Your task to perform on an android device: Open Google Chrome and click the shortcut for Amazon.com Image 0: 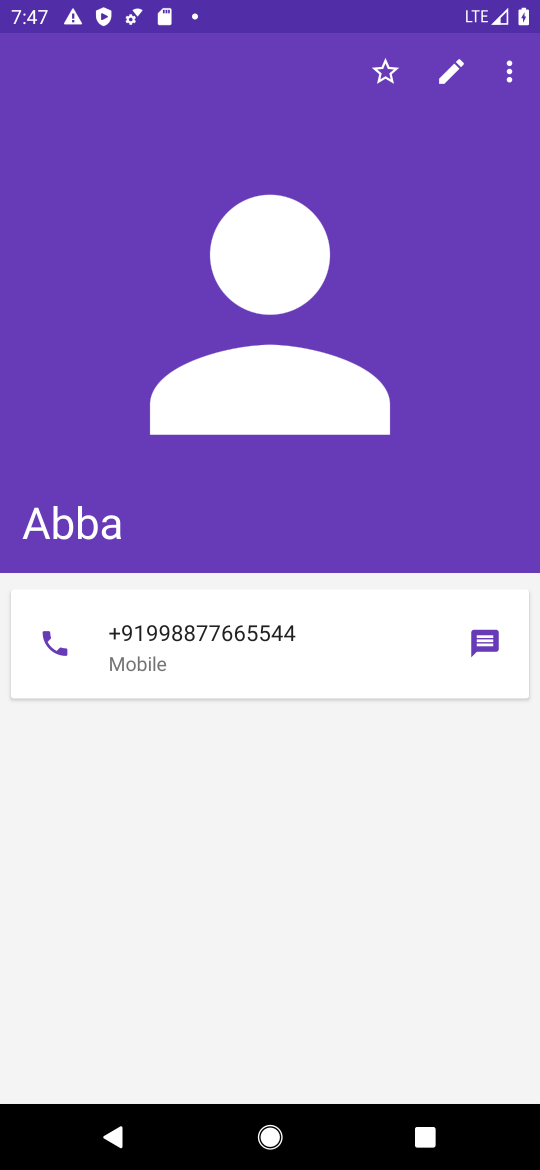
Step 0: press home button
Your task to perform on an android device: Open Google Chrome and click the shortcut for Amazon.com Image 1: 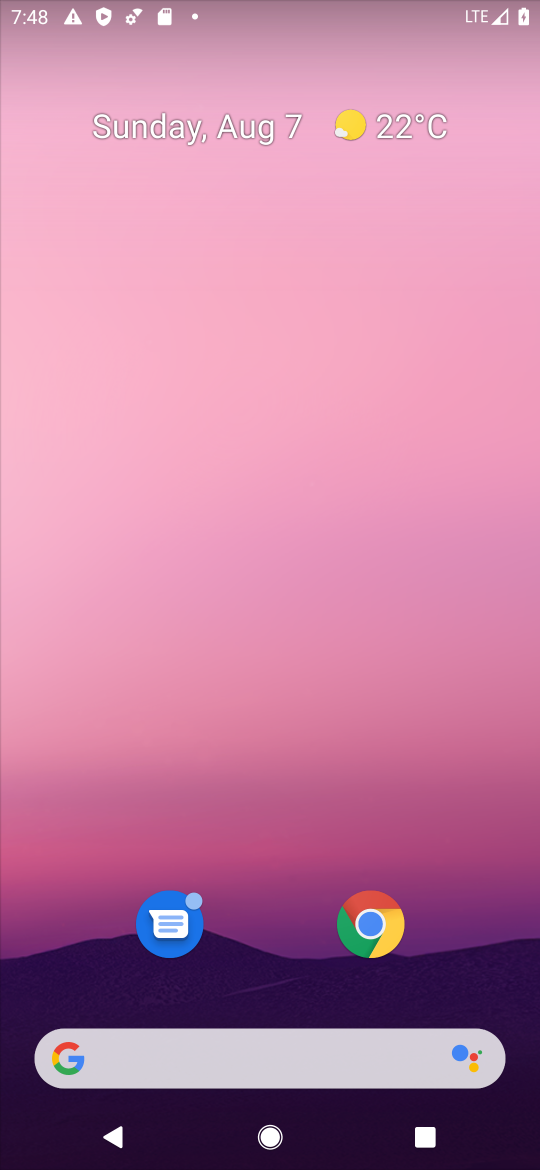
Step 1: drag from (289, 875) to (334, 34)
Your task to perform on an android device: Open Google Chrome and click the shortcut for Amazon.com Image 2: 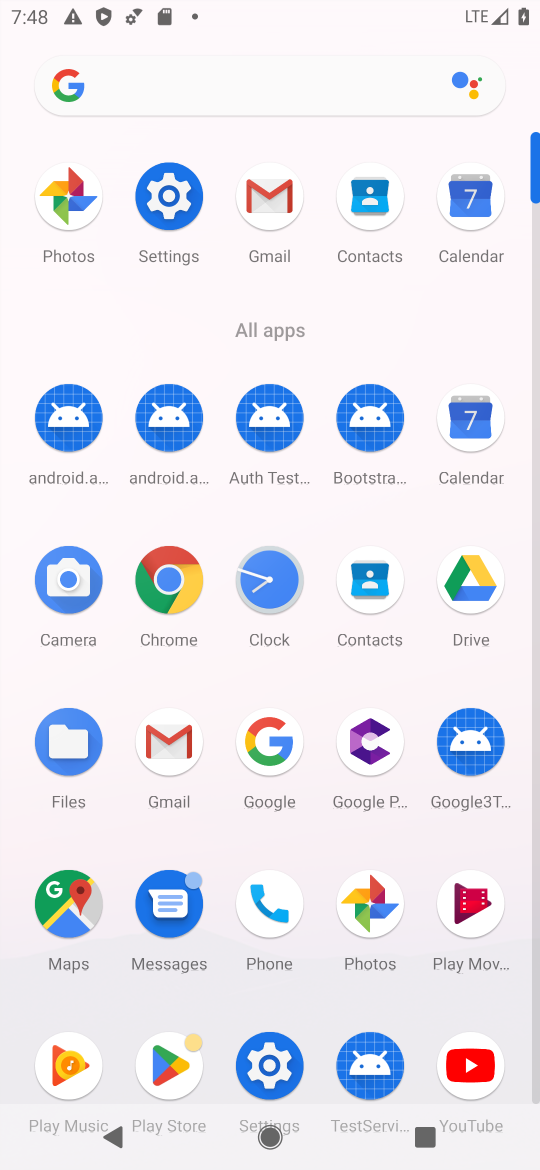
Step 2: click (165, 570)
Your task to perform on an android device: Open Google Chrome and click the shortcut for Amazon.com Image 3: 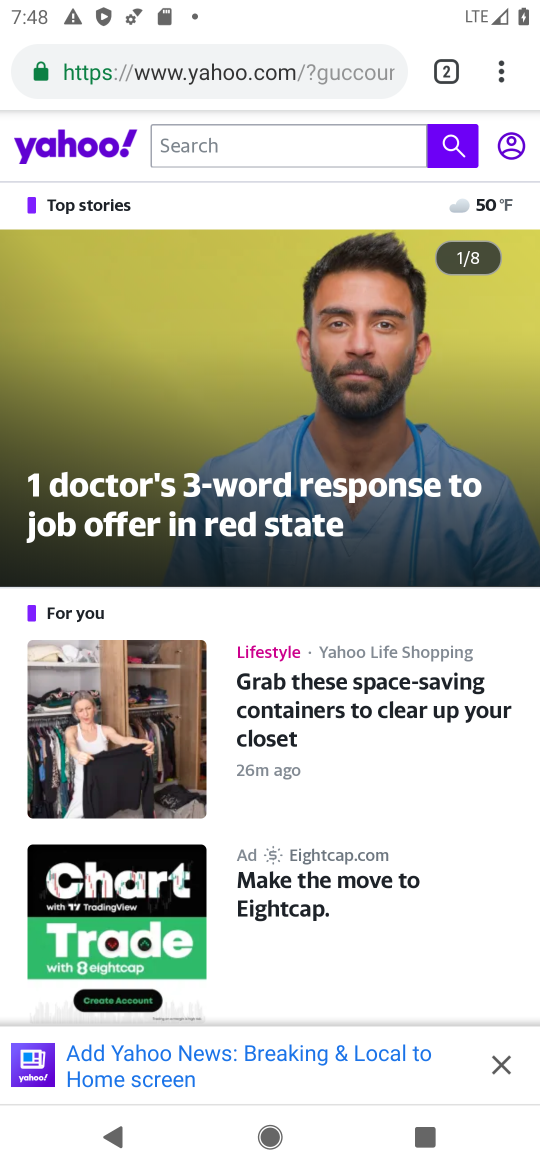
Step 3: click (494, 73)
Your task to perform on an android device: Open Google Chrome and click the shortcut for Amazon.com Image 4: 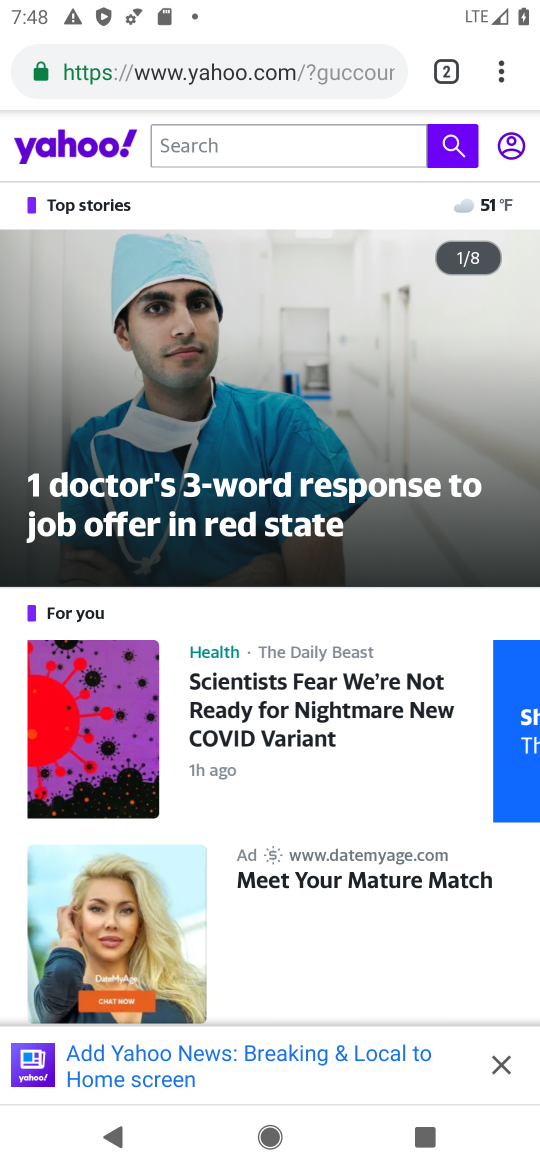
Step 4: press back button
Your task to perform on an android device: Open Google Chrome and click the shortcut for Amazon.com Image 5: 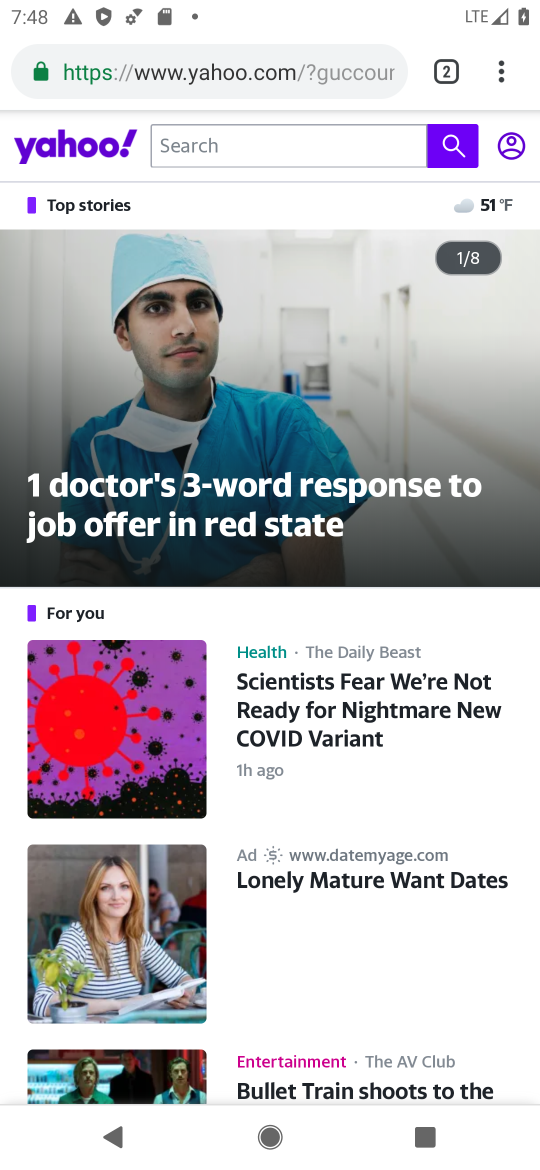
Step 5: press back button
Your task to perform on an android device: Open Google Chrome and click the shortcut for Amazon.com Image 6: 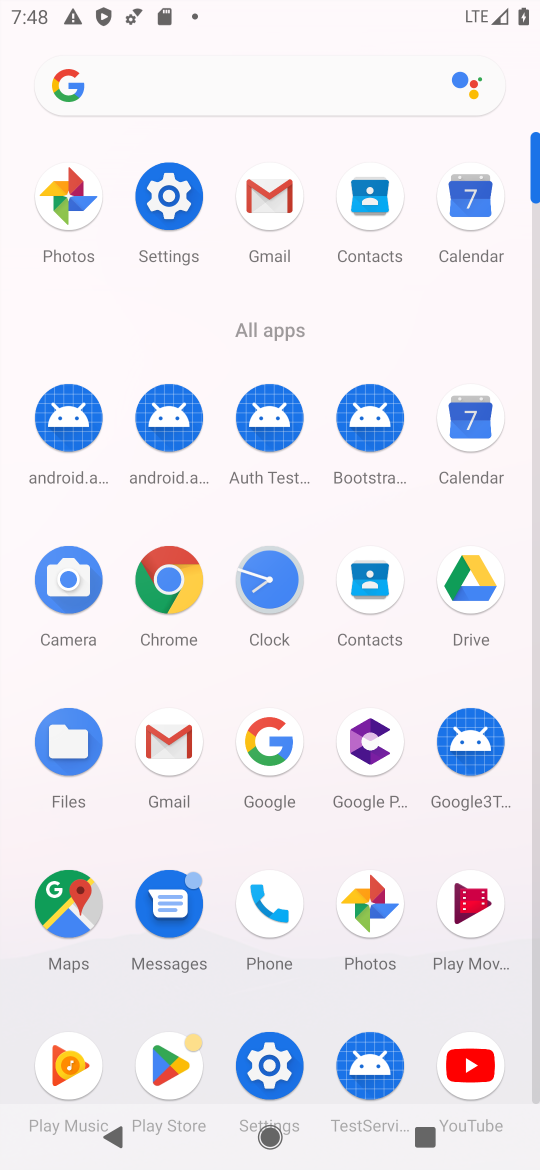
Step 6: click (178, 577)
Your task to perform on an android device: Open Google Chrome and click the shortcut for Amazon.com Image 7: 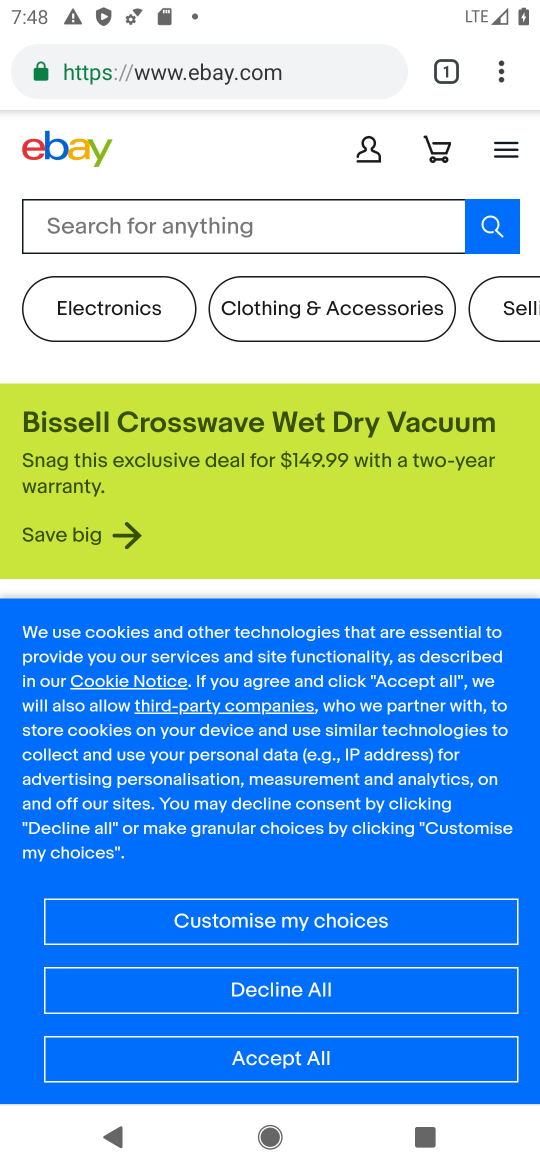
Step 7: click (501, 73)
Your task to perform on an android device: Open Google Chrome and click the shortcut for Amazon.com Image 8: 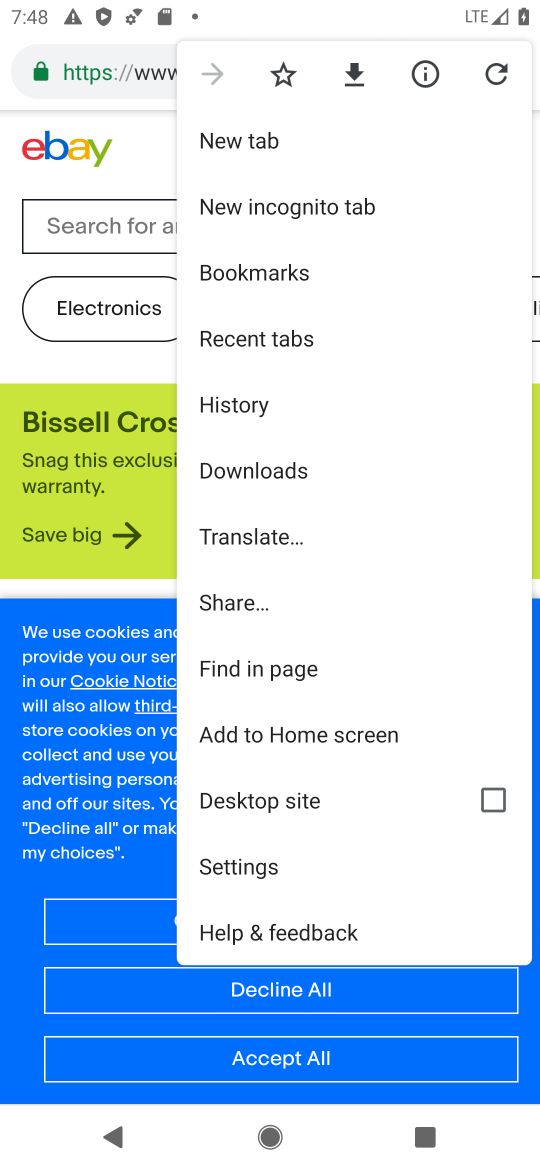
Step 8: click (380, 138)
Your task to perform on an android device: Open Google Chrome and click the shortcut for Amazon.com Image 9: 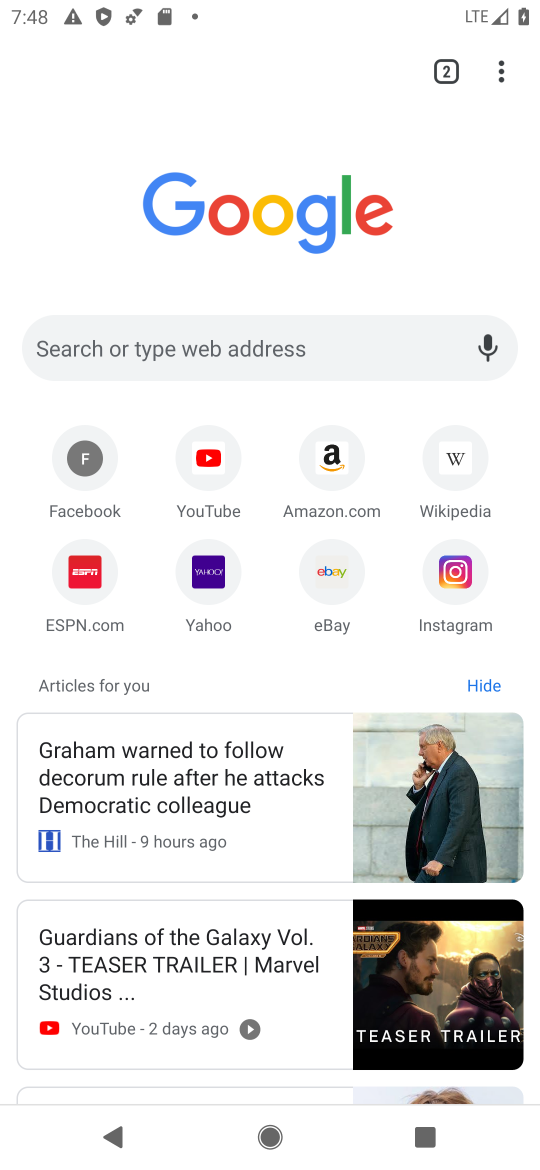
Step 9: click (335, 446)
Your task to perform on an android device: Open Google Chrome and click the shortcut for Amazon.com Image 10: 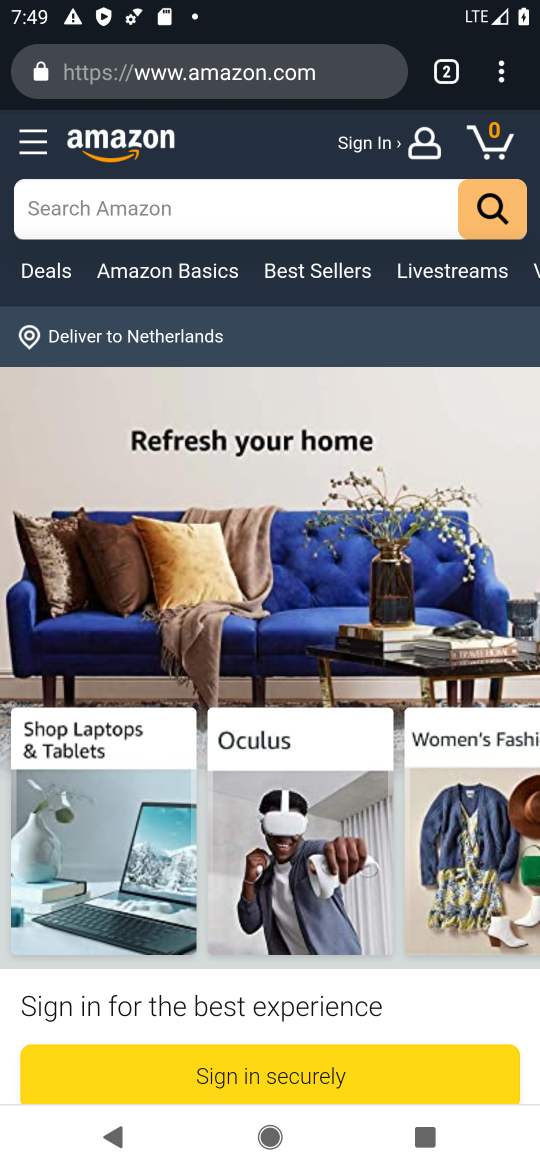
Step 10: task complete